Your task to perform on an android device: change the clock display to analog Image 0: 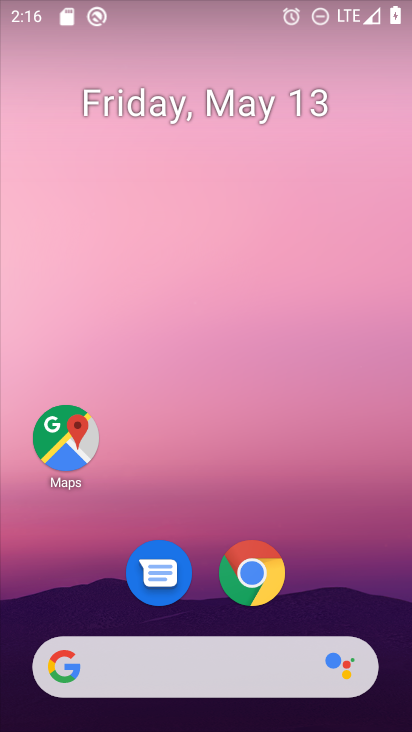
Step 0: drag from (285, 708) to (169, 25)
Your task to perform on an android device: change the clock display to analog Image 1: 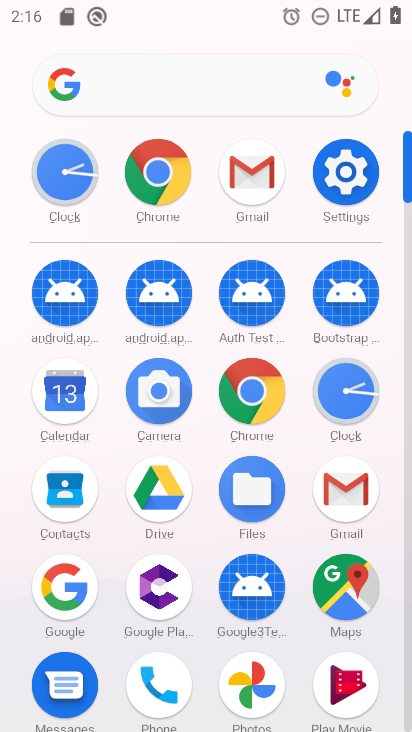
Step 1: click (358, 404)
Your task to perform on an android device: change the clock display to analog Image 2: 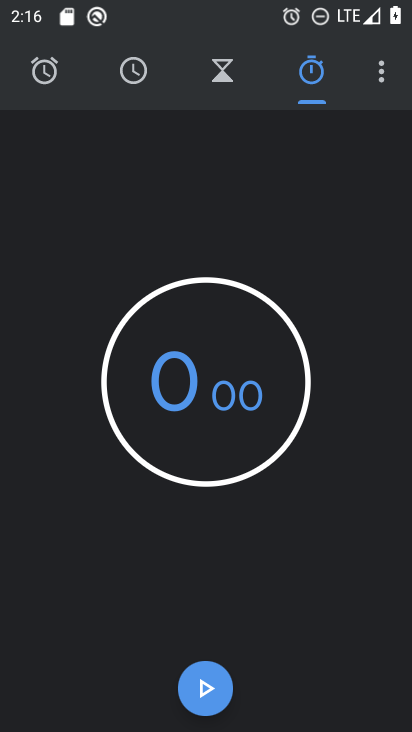
Step 2: click (377, 78)
Your task to perform on an android device: change the clock display to analog Image 3: 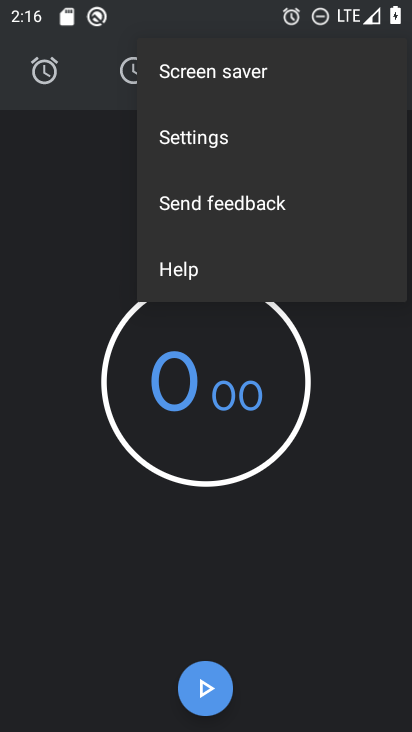
Step 3: click (261, 148)
Your task to perform on an android device: change the clock display to analog Image 4: 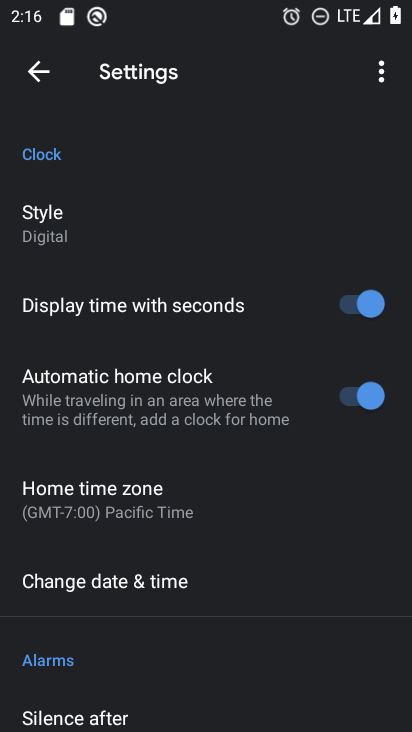
Step 4: click (126, 241)
Your task to perform on an android device: change the clock display to analog Image 5: 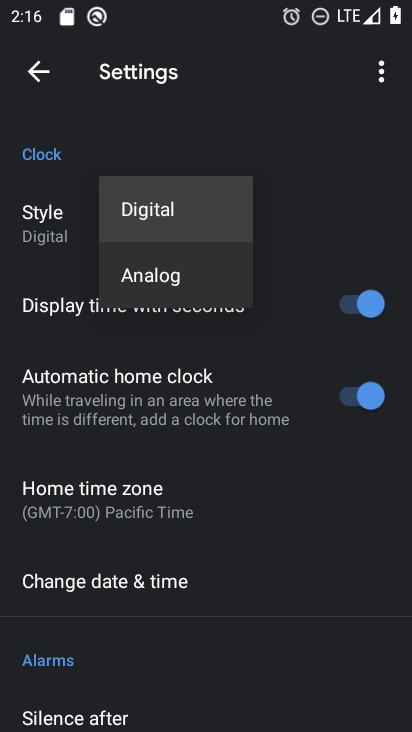
Step 5: click (159, 280)
Your task to perform on an android device: change the clock display to analog Image 6: 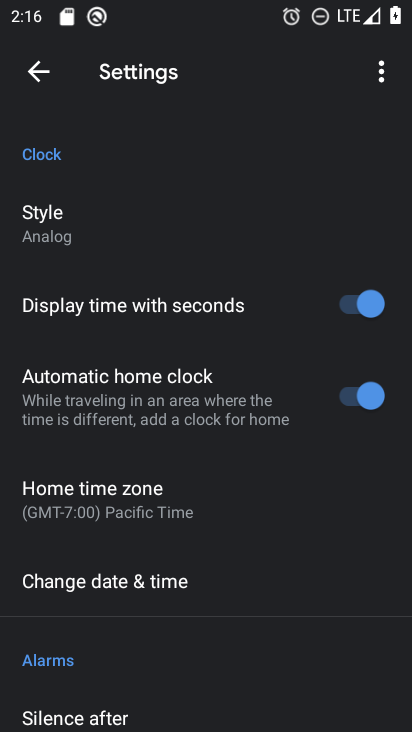
Step 6: task complete